Your task to perform on an android device: Open the phone app and click the voicemail tab. Image 0: 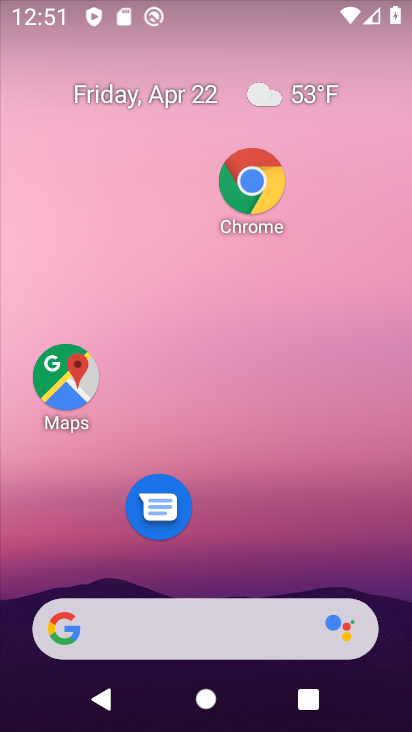
Step 0: drag from (251, 557) to (207, 168)
Your task to perform on an android device: Open the phone app and click the voicemail tab. Image 1: 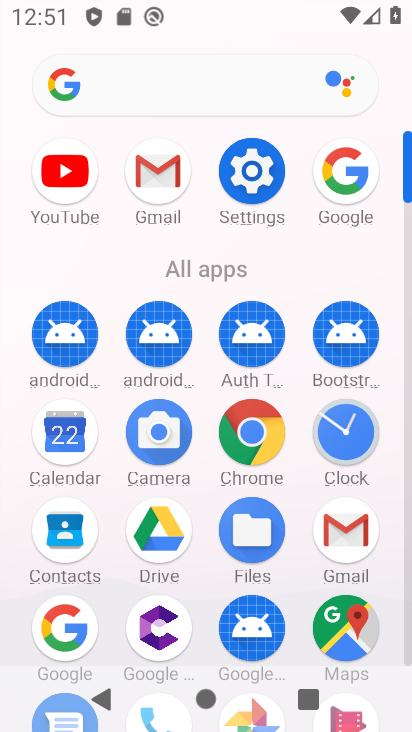
Step 1: drag from (213, 277) to (202, 115)
Your task to perform on an android device: Open the phone app and click the voicemail tab. Image 2: 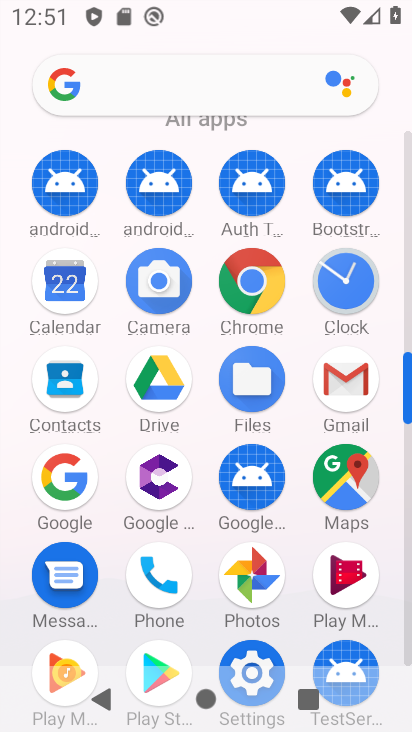
Step 2: click (149, 590)
Your task to perform on an android device: Open the phone app and click the voicemail tab. Image 3: 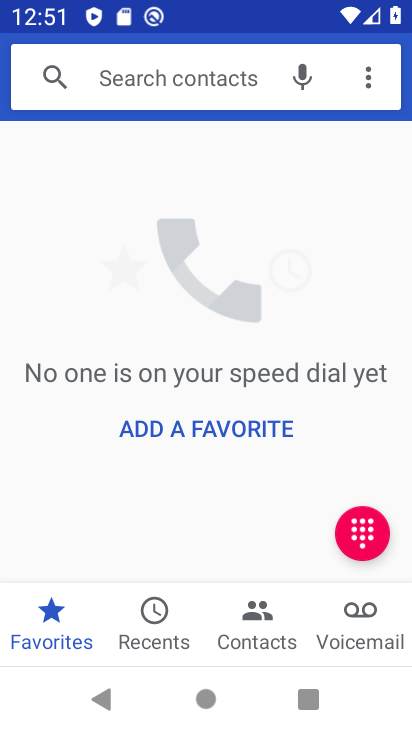
Step 3: click (340, 613)
Your task to perform on an android device: Open the phone app and click the voicemail tab. Image 4: 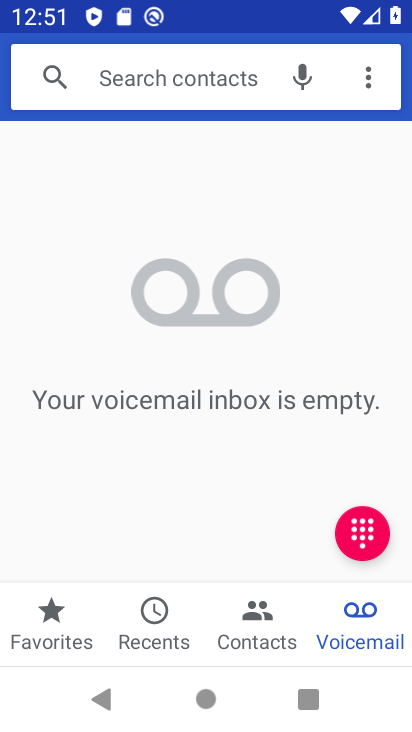
Step 4: task complete